Your task to perform on an android device: Open calendar and show me the fourth week of next month Image 0: 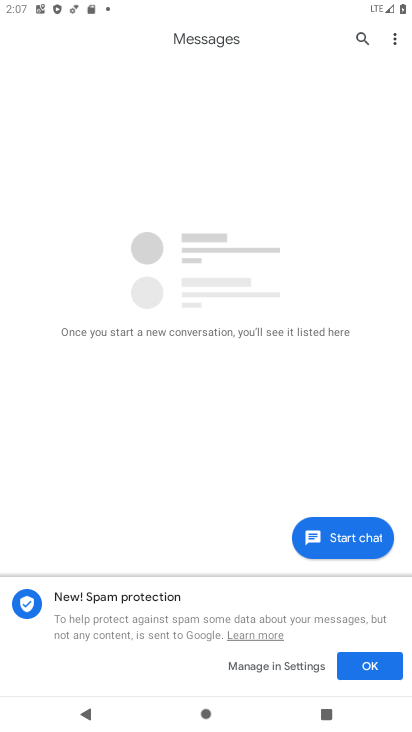
Step 0: press back button
Your task to perform on an android device: Open calendar and show me the fourth week of next month Image 1: 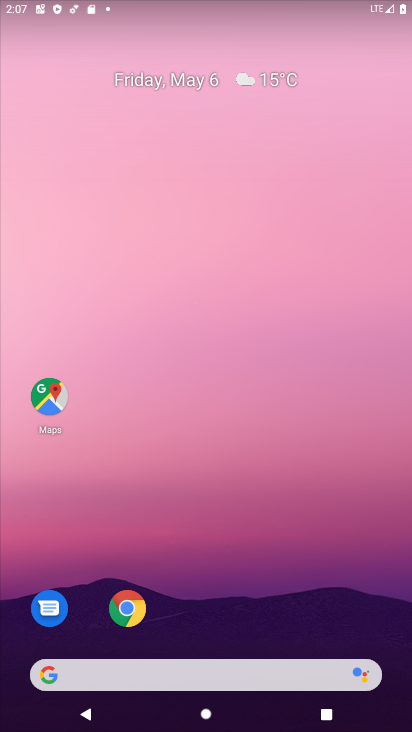
Step 1: drag from (198, 617) to (202, 45)
Your task to perform on an android device: Open calendar and show me the fourth week of next month Image 2: 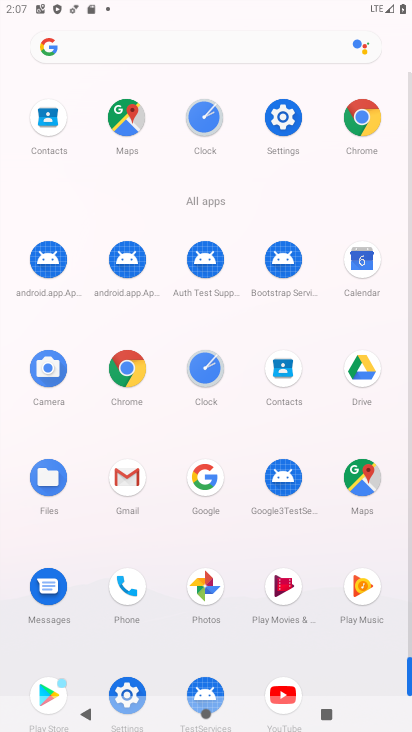
Step 2: drag from (155, 648) to (176, 518)
Your task to perform on an android device: Open calendar and show me the fourth week of next month Image 3: 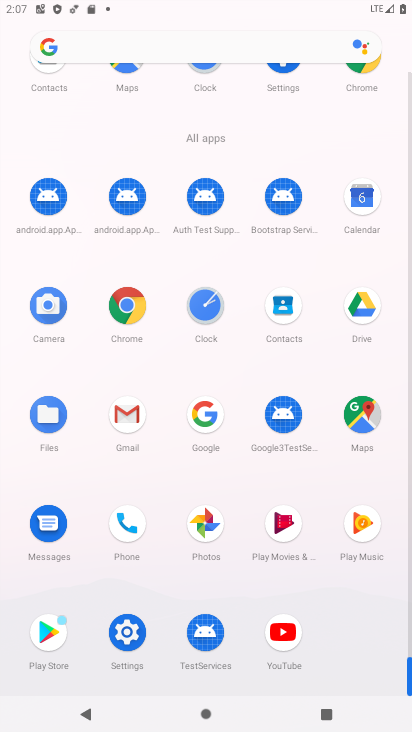
Step 3: click (363, 198)
Your task to perform on an android device: Open calendar and show me the fourth week of next month Image 4: 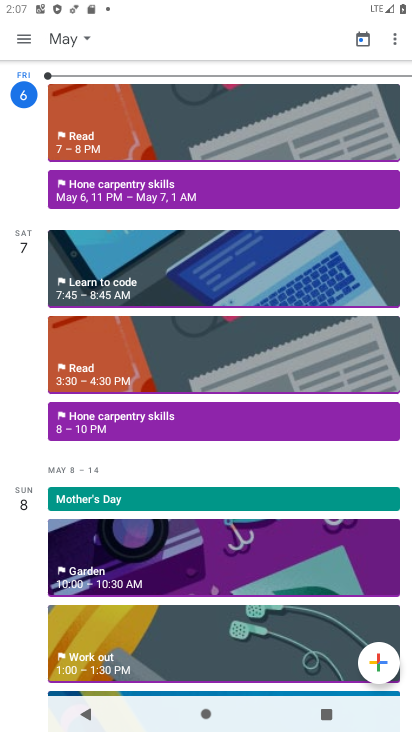
Step 4: click (83, 37)
Your task to perform on an android device: Open calendar and show me the fourth week of next month Image 5: 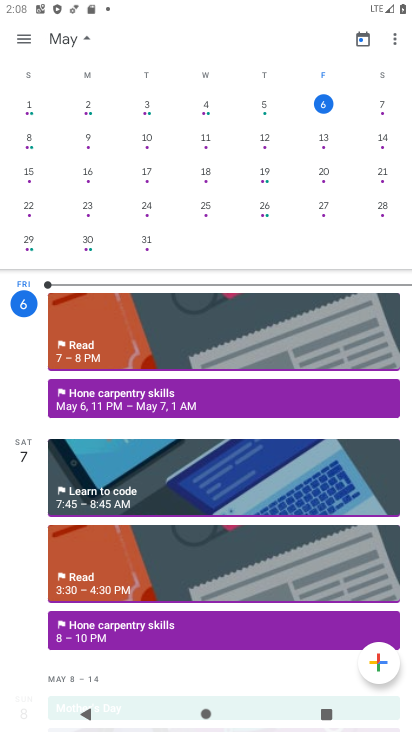
Step 5: drag from (356, 158) to (0, 192)
Your task to perform on an android device: Open calendar and show me the fourth week of next month Image 6: 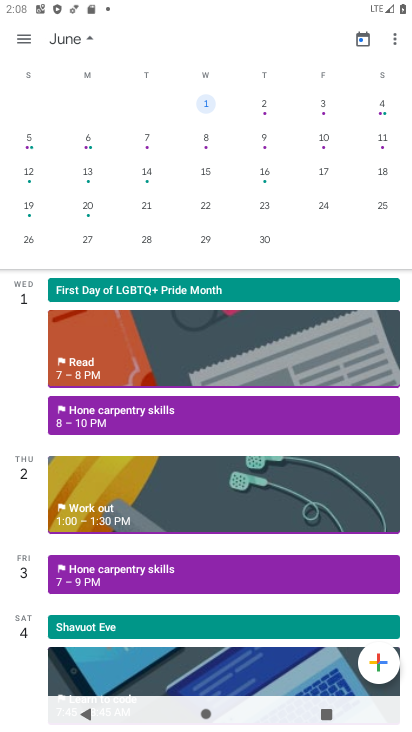
Step 6: click (83, 231)
Your task to perform on an android device: Open calendar and show me the fourth week of next month Image 7: 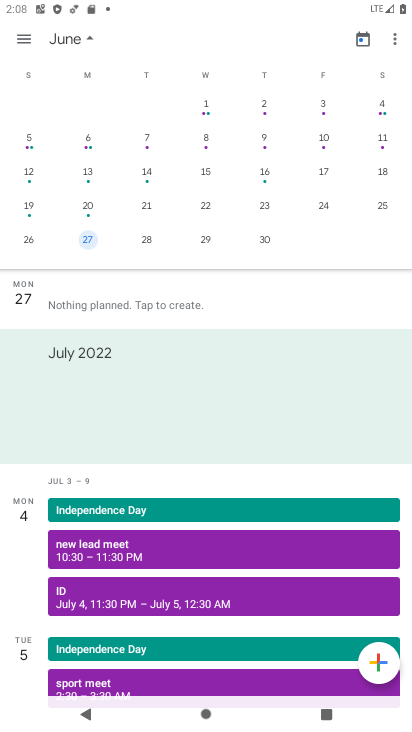
Step 7: click (16, 35)
Your task to perform on an android device: Open calendar and show me the fourth week of next month Image 8: 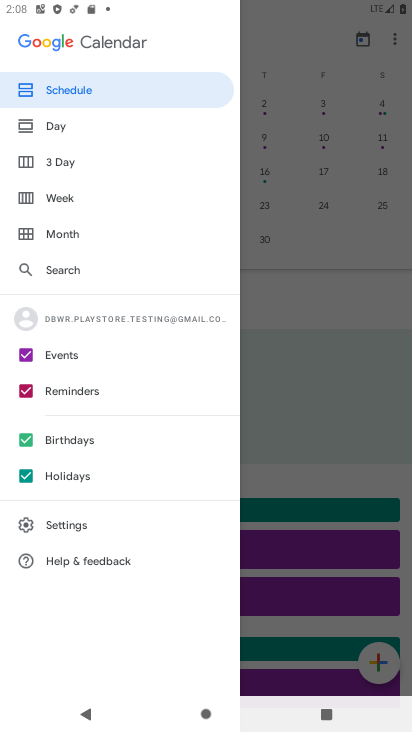
Step 8: click (68, 200)
Your task to perform on an android device: Open calendar and show me the fourth week of next month Image 9: 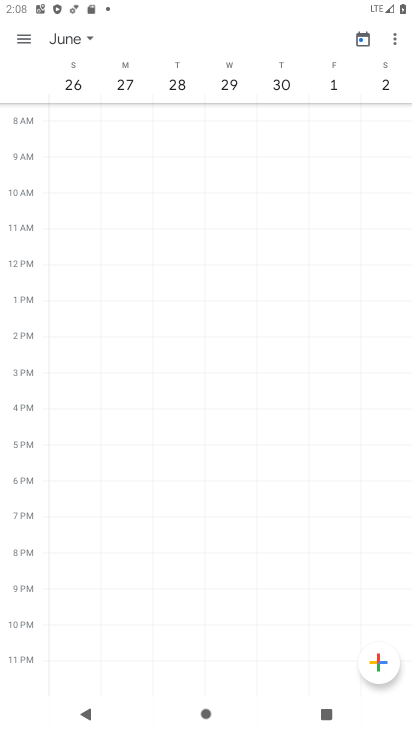
Step 9: task complete